Your task to perform on an android device: create a new album in the google photos Image 0: 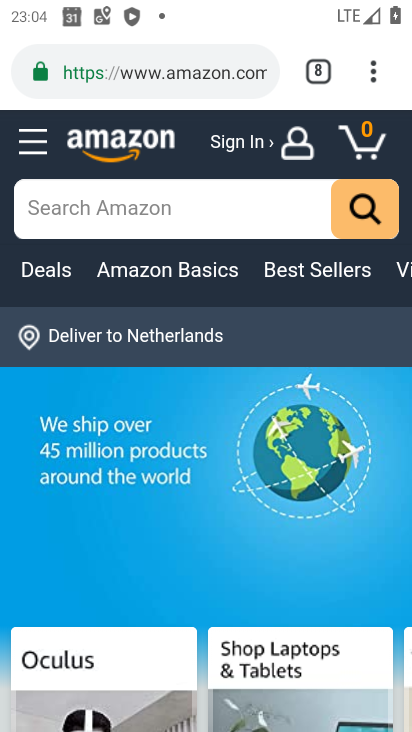
Step 0: press home button
Your task to perform on an android device: create a new album in the google photos Image 1: 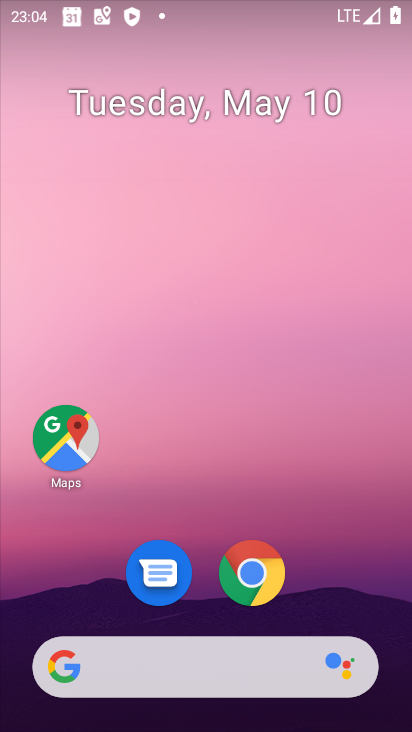
Step 1: drag from (233, 507) to (169, 42)
Your task to perform on an android device: create a new album in the google photos Image 2: 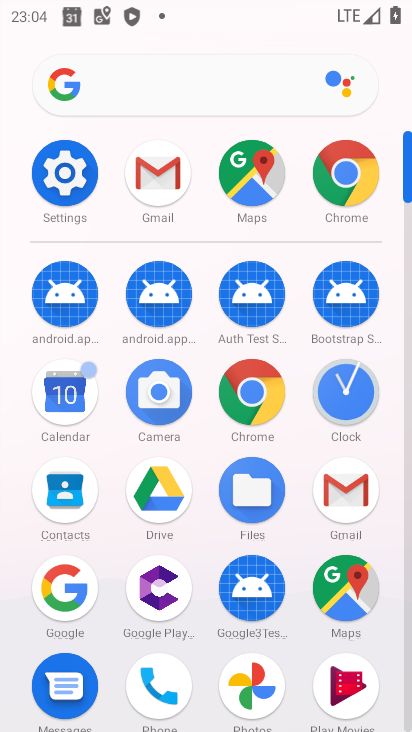
Step 2: click (250, 690)
Your task to perform on an android device: create a new album in the google photos Image 3: 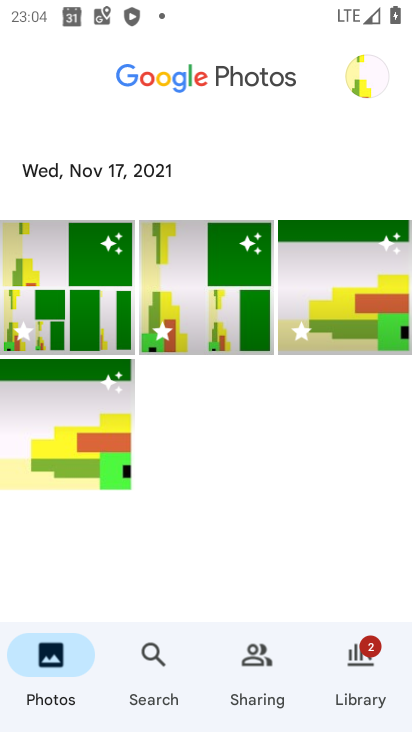
Step 3: click (380, 75)
Your task to perform on an android device: create a new album in the google photos Image 4: 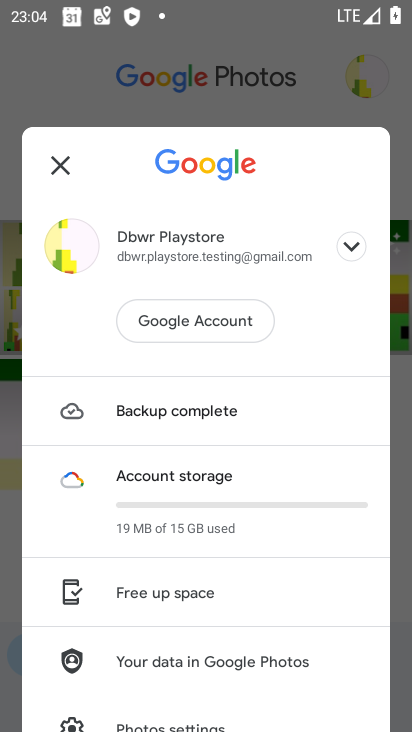
Step 4: click (61, 160)
Your task to perform on an android device: create a new album in the google photos Image 5: 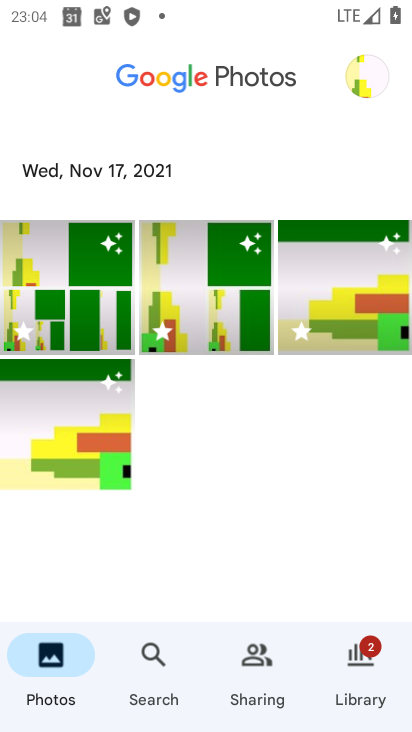
Step 5: click (152, 650)
Your task to perform on an android device: create a new album in the google photos Image 6: 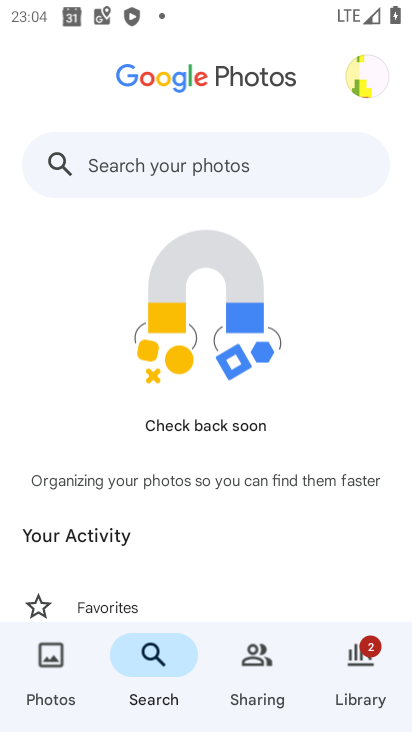
Step 6: click (234, 675)
Your task to perform on an android device: create a new album in the google photos Image 7: 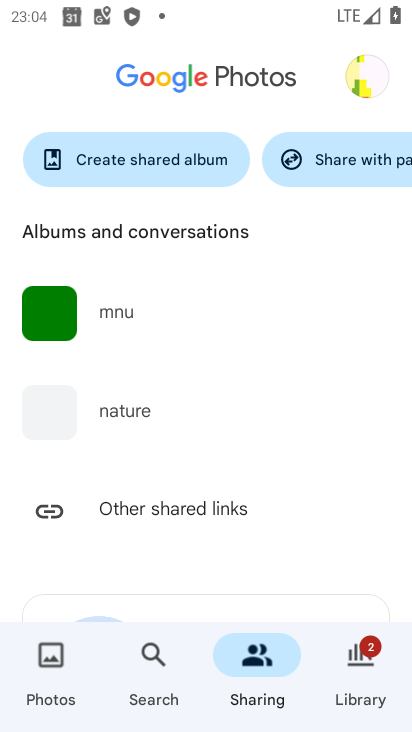
Step 7: click (357, 661)
Your task to perform on an android device: create a new album in the google photos Image 8: 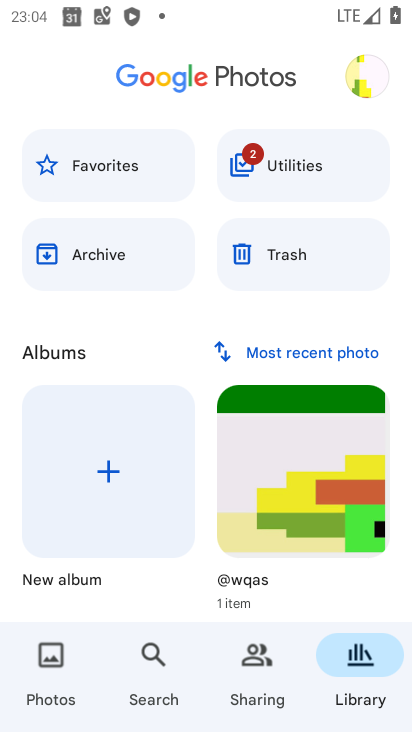
Step 8: click (102, 462)
Your task to perform on an android device: create a new album in the google photos Image 9: 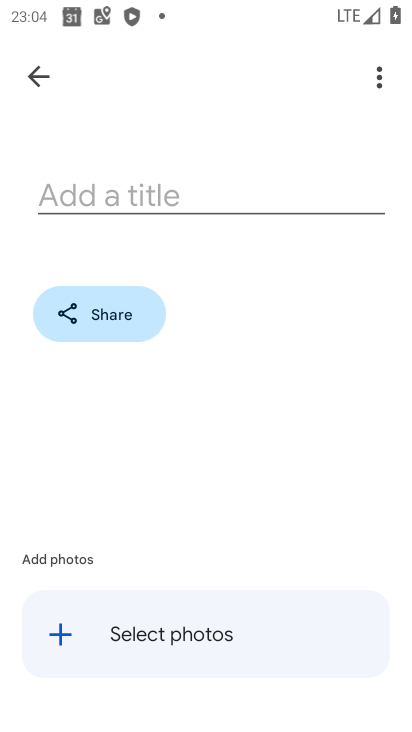
Step 9: click (167, 198)
Your task to perform on an android device: create a new album in the google photos Image 10: 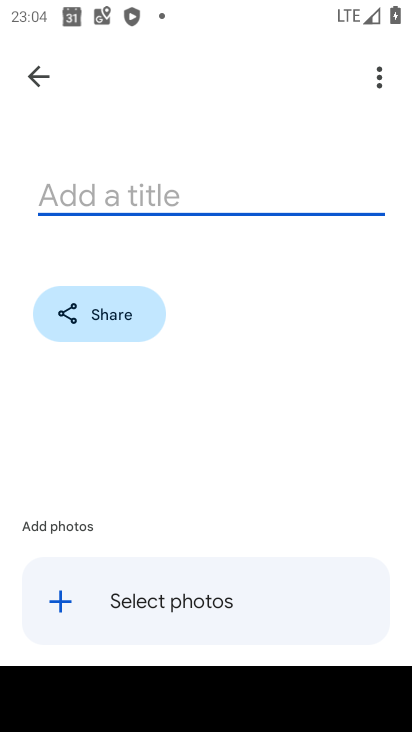
Step 10: type "janu"
Your task to perform on an android device: create a new album in the google photos Image 11: 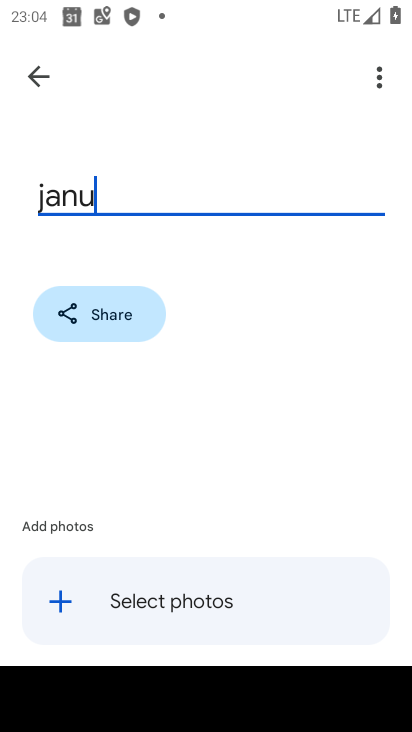
Step 11: click (61, 594)
Your task to perform on an android device: create a new album in the google photos Image 12: 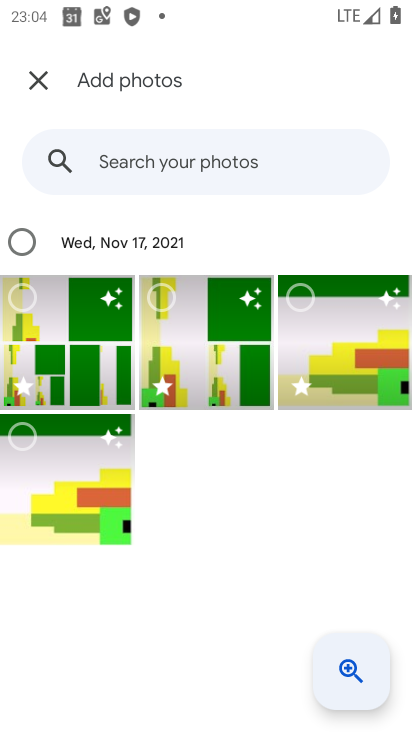
Step 12: click (186, 327)
Your task to perform on an android device: create a new album in the google photos Image 13: 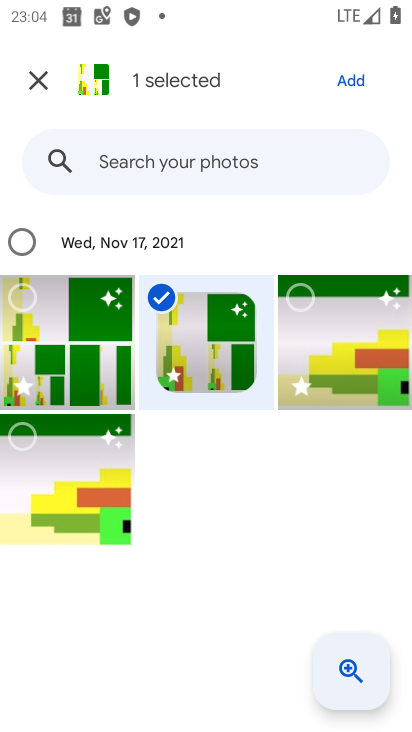
Step 13: click (360, 74)
Your task to perform on an android device: create a new album in the google photos Image 14: 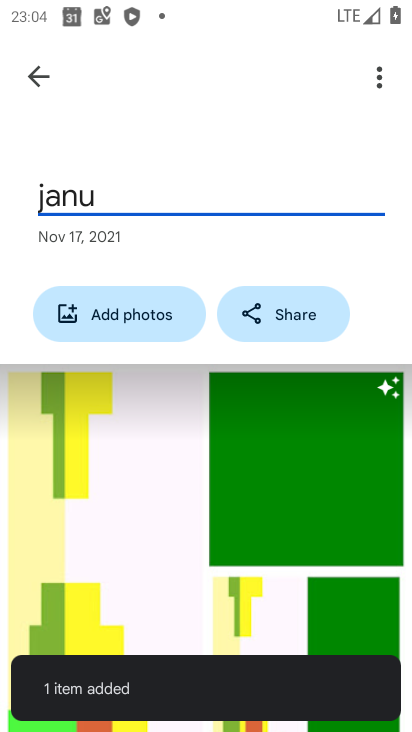
Step 14: drag from (156, 413) to (202, 5)
Your task to perform on an android device: create a new album in the google photos Image 15: 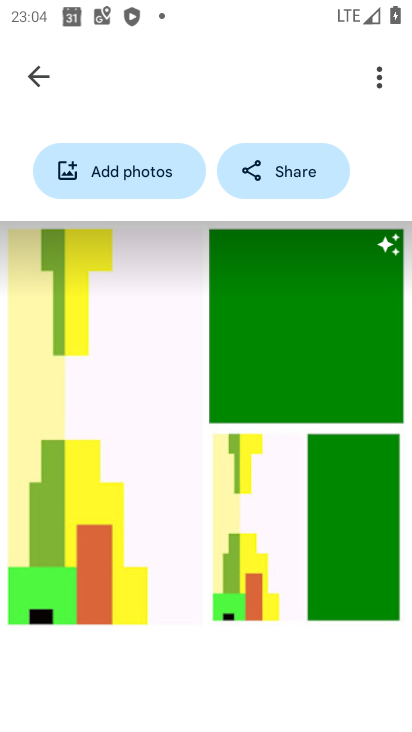
Step 15: click (375, 77)
Your task to perform on an android device: create a new album in the google photos Image 16: 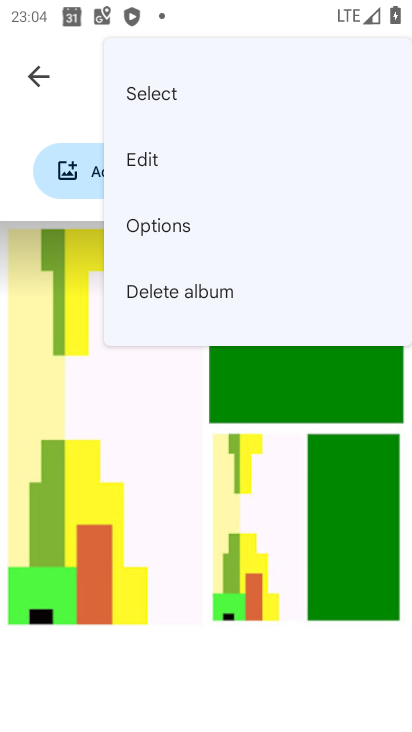
Step 16: click (50, 93)
Your task to perform on an android device: create a new album in the google photos Image 17: 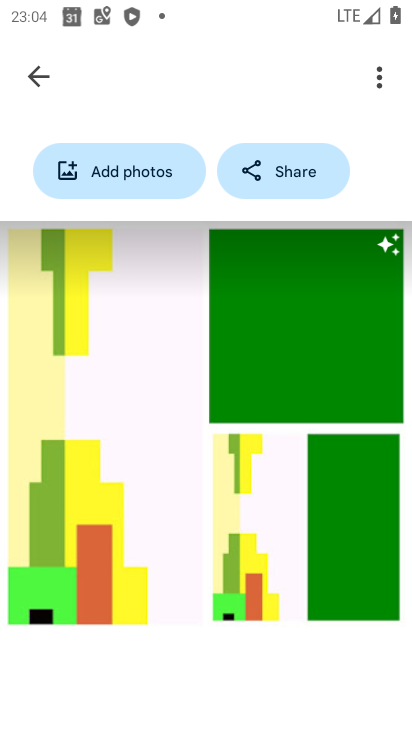
Step 17: task complete